Your task to perform on an android device: Go to privacy settings Image 0: 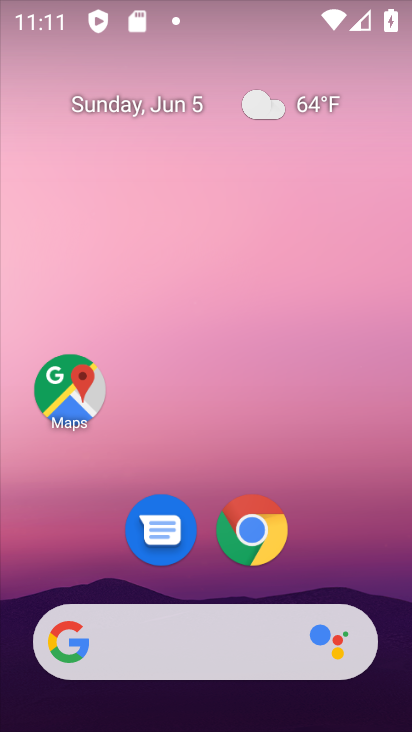
Step 0: drag from (353, 517) to (359, 39)
Your task to perform on an android device: Go to privacy settings Image 1: 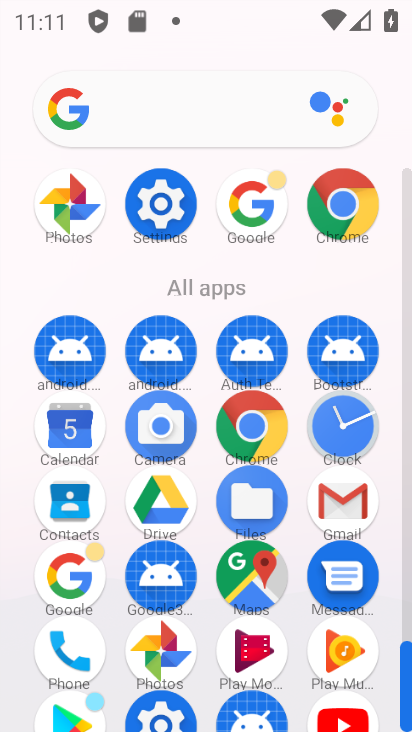
Step 1: click (155, 220)
Your task to perform on an android device: Go to privacy settings Image 2: 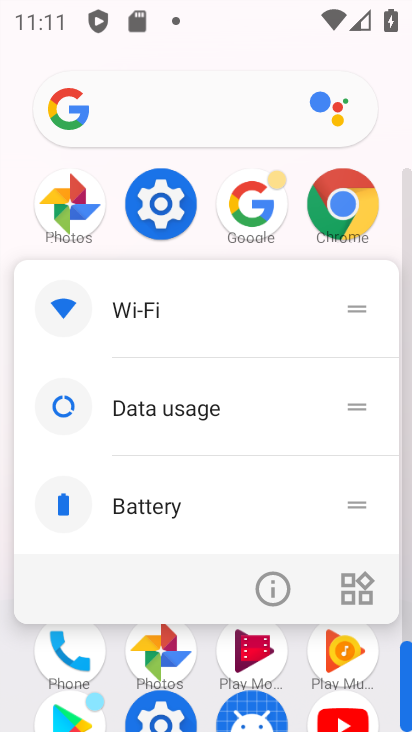
Step 2: click (155, 220)
Your task to perform on an android device: Go to privacy settings Image 3: 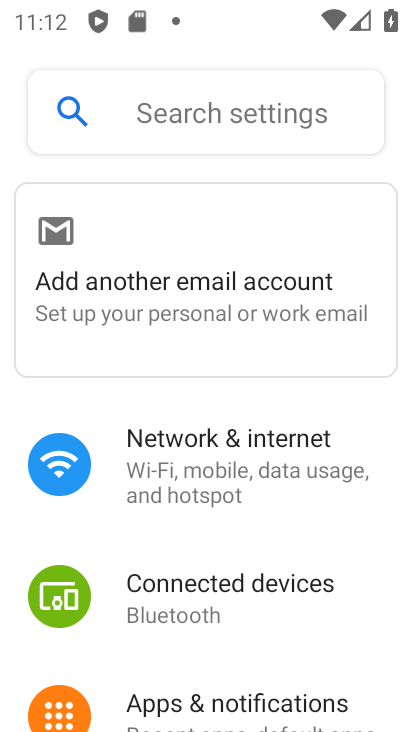
Step 3: drag from (254, 624) to (238, 116)
Your task to perform on an android device: Go to privacy settings Image 4: 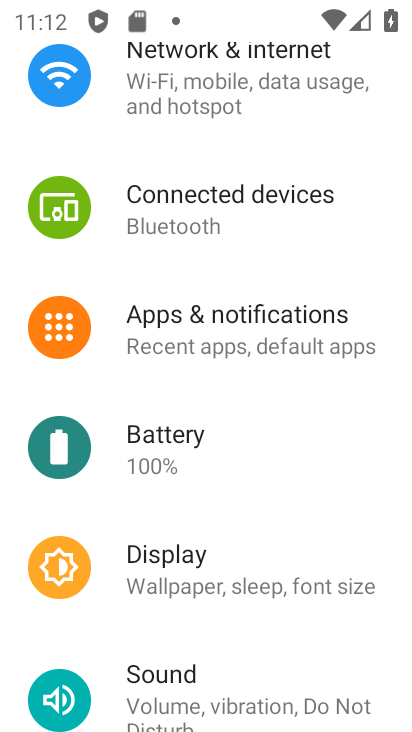
Step 4: drag from (226, 649) to (241, 164)
Your task to perform on an android device: Go to privacy settings Image 5: 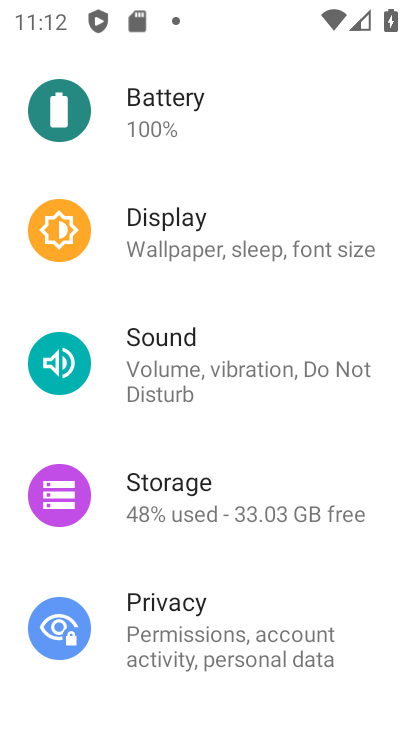
Step 5: click (238, 608)
Your task to perform on an android device: Go to privacy settings Image 6: 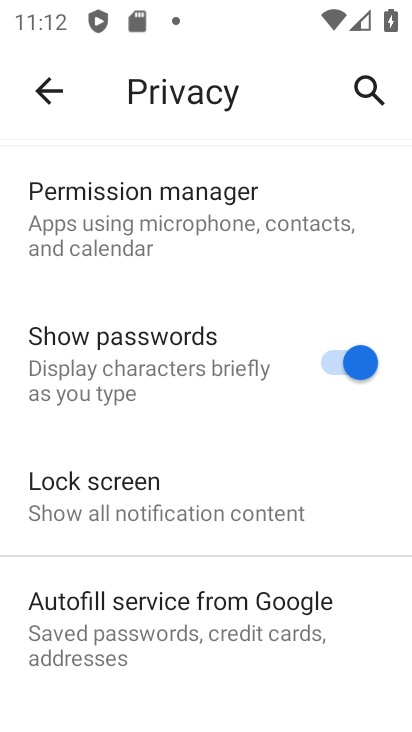
Step 6: task complete